Your task to perform on an android device: choose inbox layout in the gmail app Image 0: 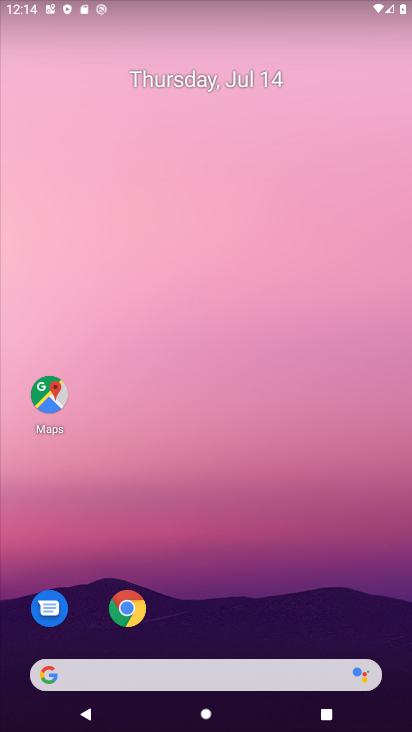
Step 0: drag from (181, 644) to (236, 107)
Your task to perform on an android device: choose inbox layout in the gmail app Image 1: 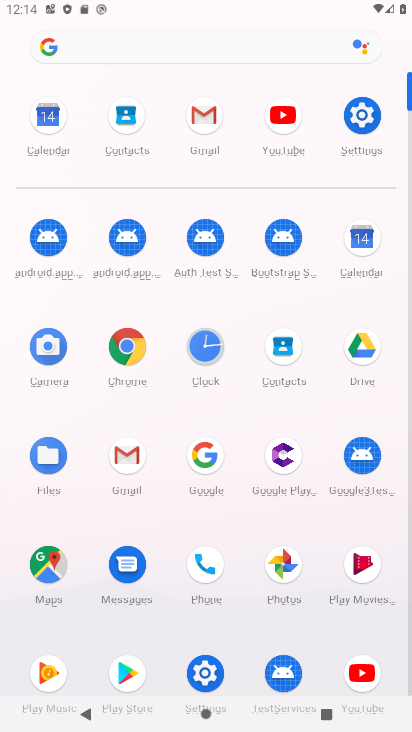
Step 1: click (190, 120)
Your task to perform on an android device: choose inbox layout in the gmail app Image 2: 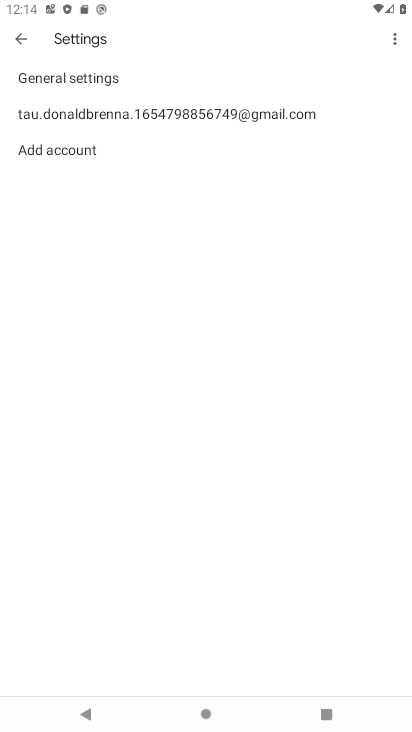
Step 2: click (136, 119)
Your task to perform on an android device: choose inbox layout in the gmail app Image 3: 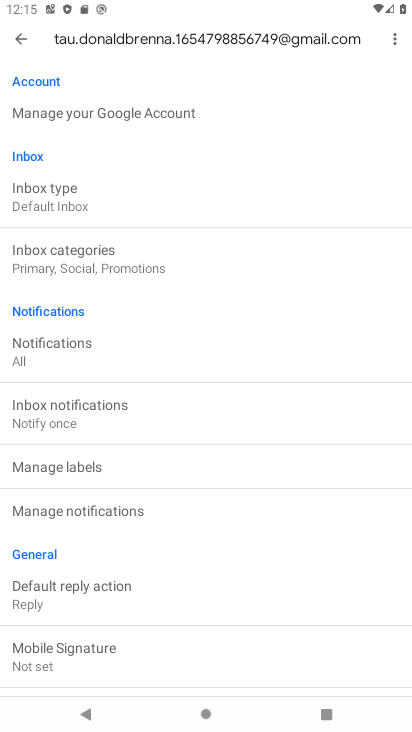
Step 3: click (88, 198)
Your task to perform on an android device: choose inbox layout in the gmail app Image 4: 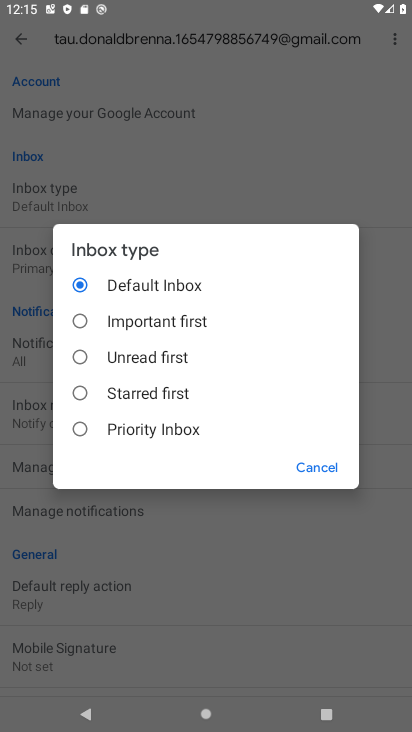
Step 4: click (148, 432)
Your task to perform on an android device: choose inbox layout in the gmail app Image 5: 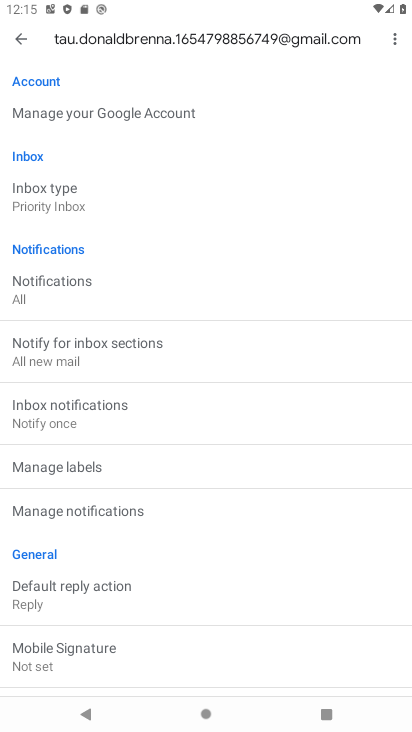
Step 5: task complete